Your task to perform on an android device: turn off data saver in the chrome app Image 0: 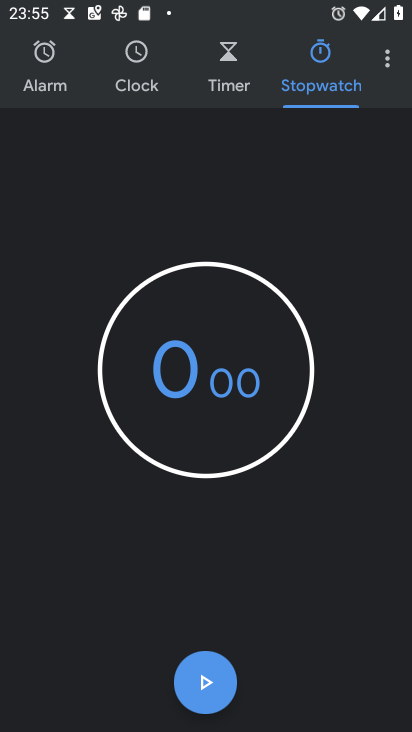
Step 0: press home button
Your task to perform on an android device: turn off data saver in the chrome app Image 1: 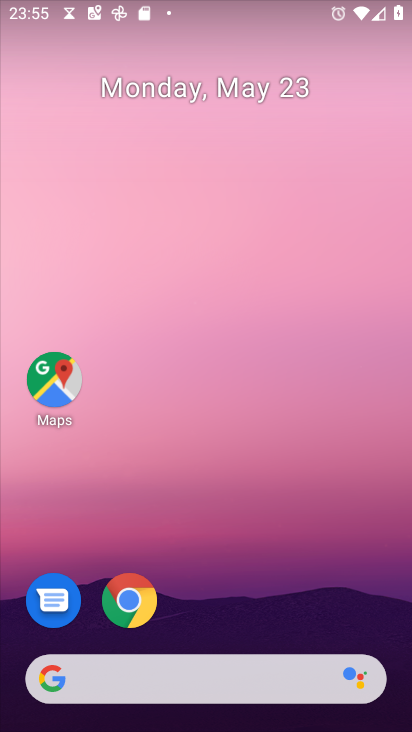
Step 1: click (128, 599)
Your task to perform on an android device: turn off data saver in the chrome app Image 2: 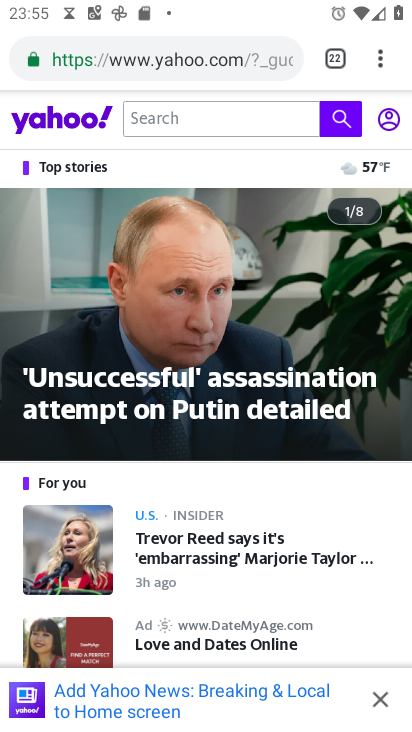
Step 2: click (380, 65)
Your task to perform on an android device: turn off data saver in the chrome app Image 3: 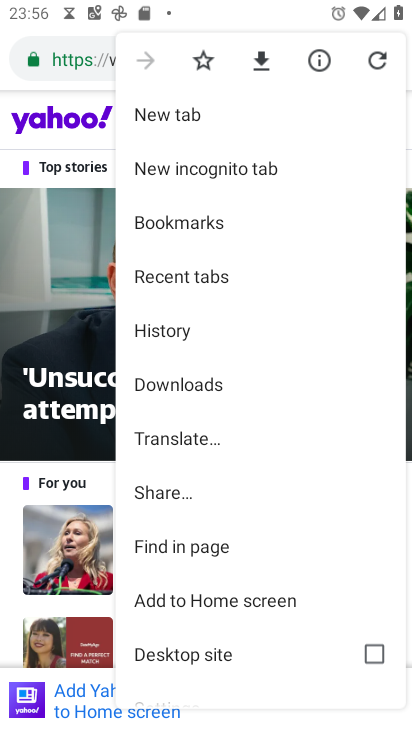
Step 3: drag from (197, 619) to (190, 299)
Your task to perform on an android device: turn off data saver in the chrome app Image 4: 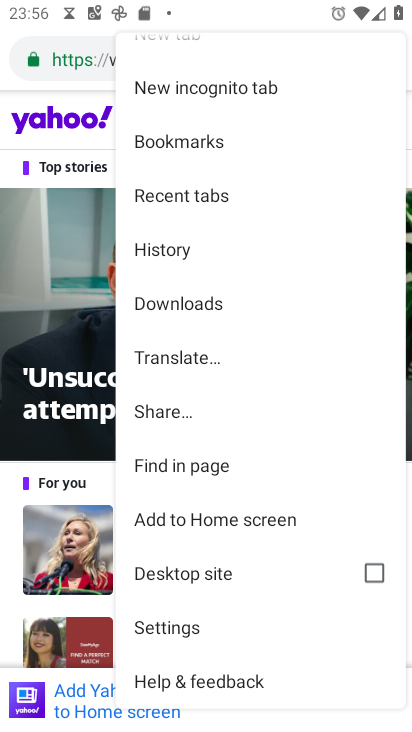
Step 4: click (180, 626)
Your task to perform on an android device: turn off data saver in the chrome app Image 5: 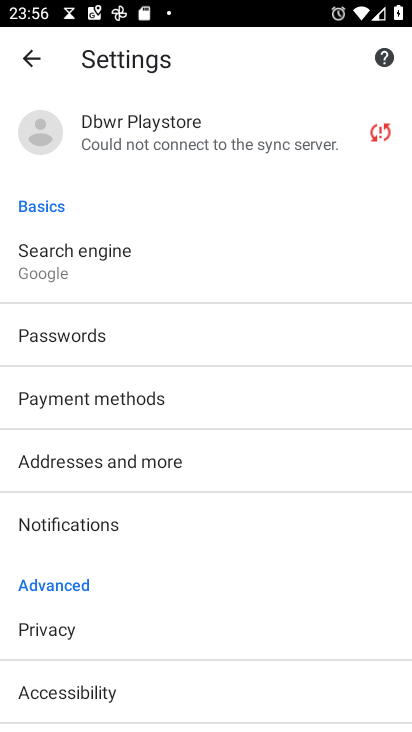
Step 5: drag from (101, 629) to (114, 297)
Your task to perform on an android device: turn off data saver in the chrome app Image 6: 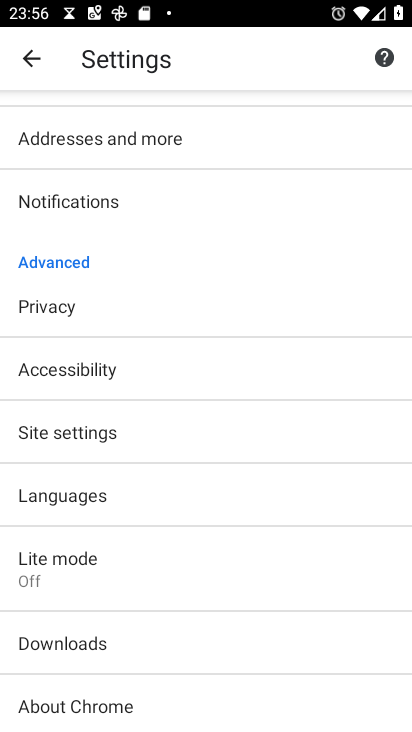
Step 6: click (81, 553)
Your task to perform on an android device: turn off data saver in the chrome app Image 7: 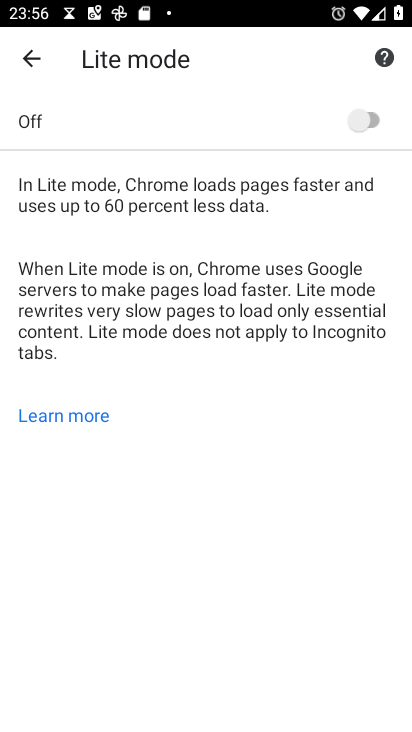
Step 7: task complete